Your task to perform on an android device: Go to Google Image 0: 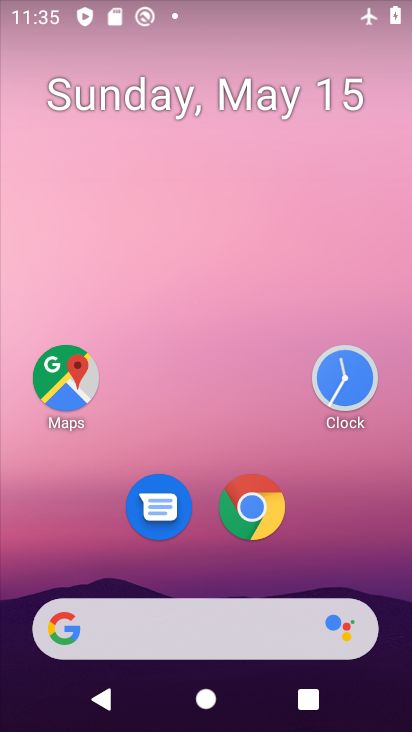
Step 0: drag from (327, 571) to (340, 218)
Your task to perform on an android device: Go to Google Image 1: 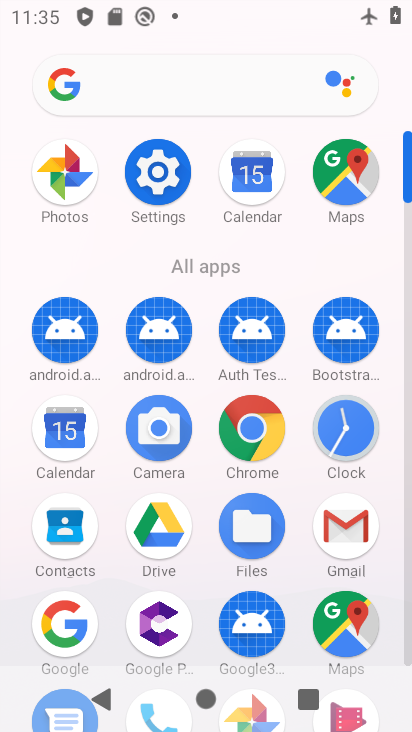
Step 1: click (68, 613)
Your task to perform on an android device: Go to Google Image 2: 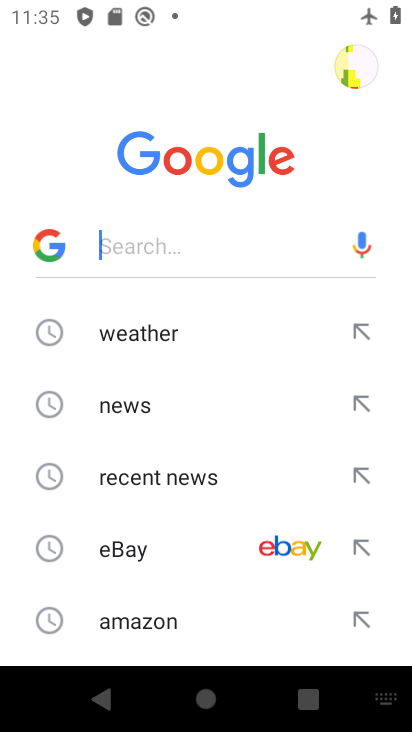
Step 2: task complete